Your task to perform on an android device: turn on bluetooth scan Image 0: 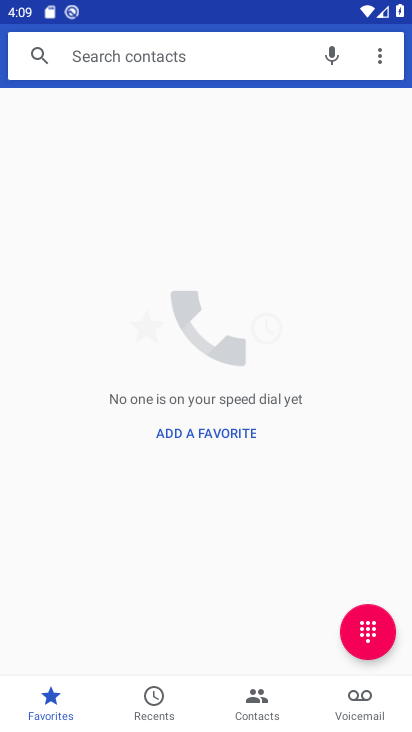
Step 0: press home button
Your task to perform on an android device: turn on bluetooth scan Image 1: 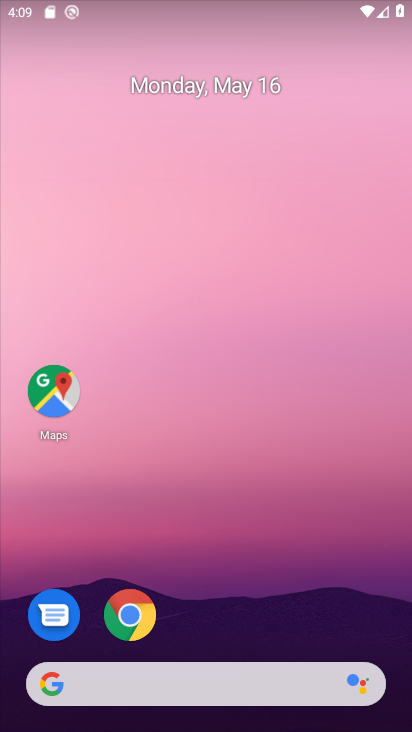
Step 1: drag from (202, 616) to (275, 5)
Your task to perform on an android device: turn on bluetooth scan Image 2: 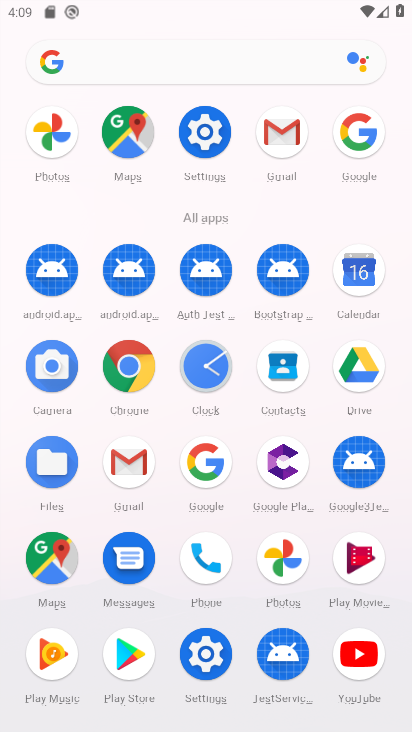
Step 2: click (203, 145)
Your task to perform on an android device: turn on bluetooth scan Image 3: 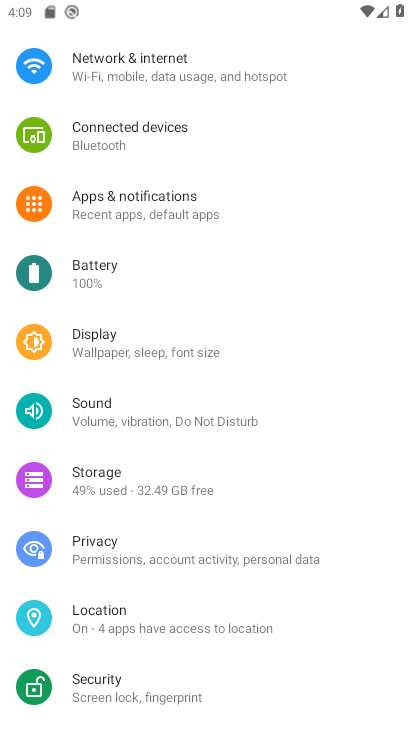
Step 3: drag from (177, 398) to (214, 116)
Your task to perform on an android device: turn on bluetooth scan Image 4: 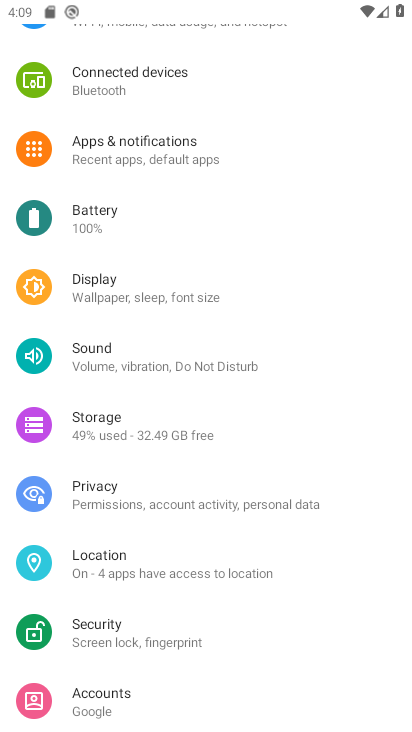
Step 4: drag from (188, 626) to (292, 108)
Your task to perform on an android device: turn on bluetooth scan Image 5: 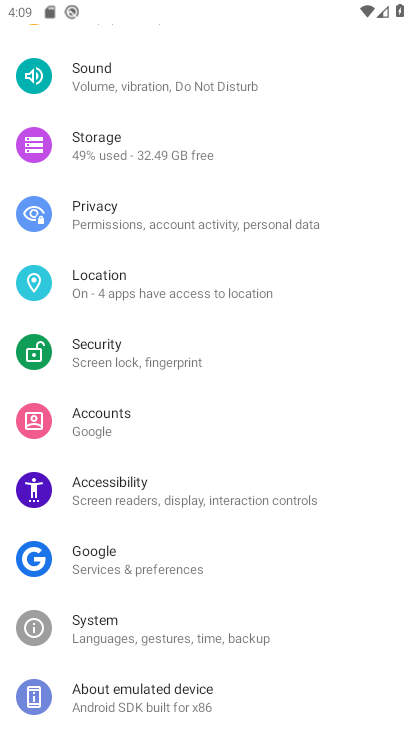
Step 5: drag from (124, 401) to (124, 550)
Your task to perform on an android device: turn on bluetooth scan Image 6: 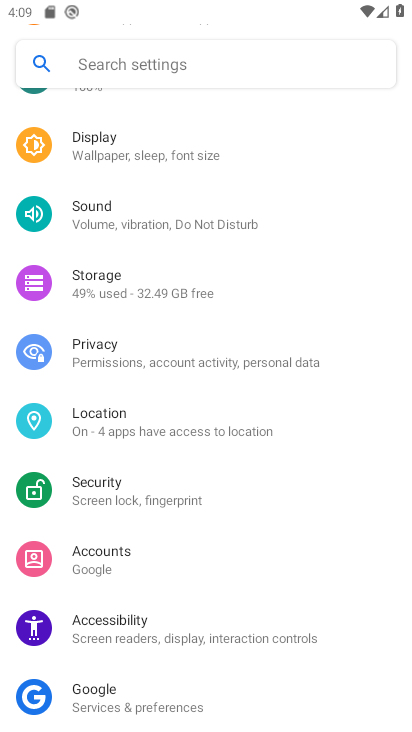
Step 6: drag from (150, 600) to (200, 279)
Your task to perform on an android device: turn on bluetooth scan Image 7: 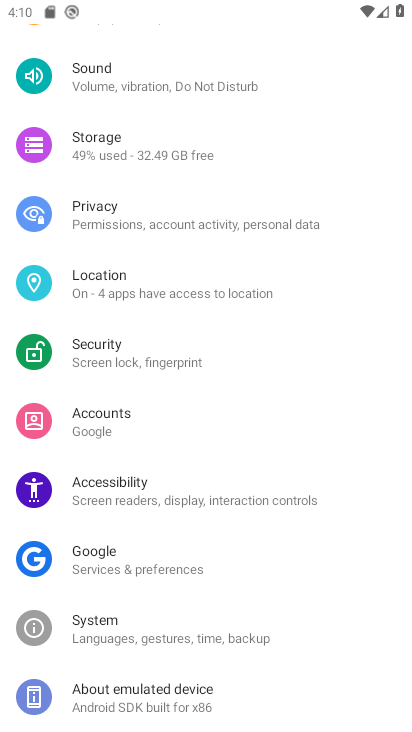
Step 7: click (111, 290)
Your task to perform on an android device: turn on bluetooth scan Image 8: 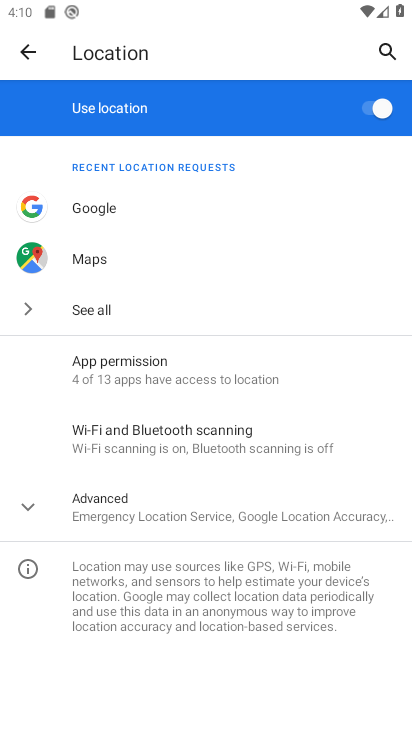
Step 8: click (127, 512)
Your task to perform on an android device: turn on bluetooth scan Image 9: 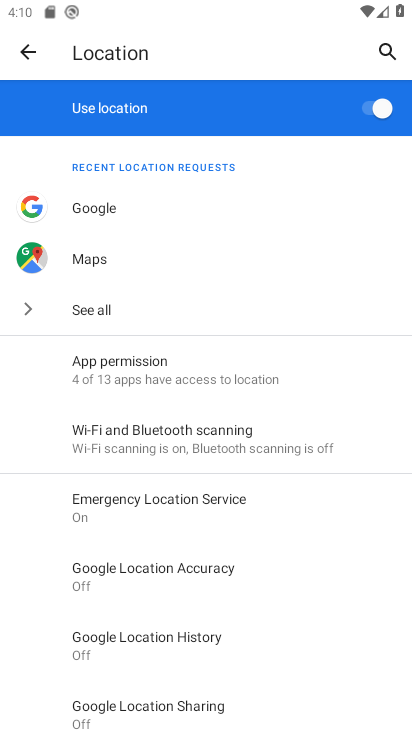
Step 9: click (184, 445)
Your task to perform on an android device: turn on bluetooth scan Image 10: 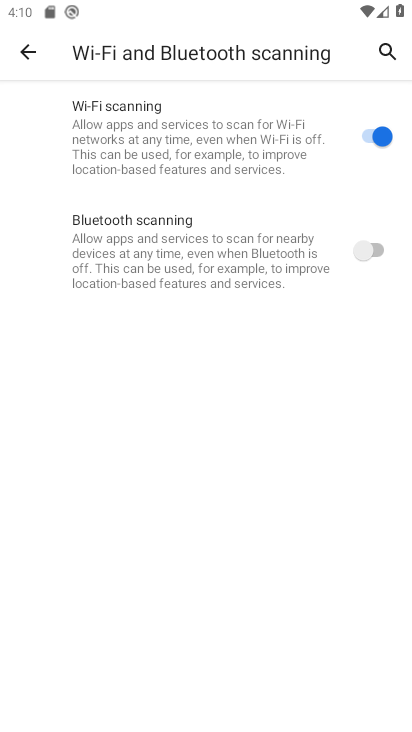
Step 10: click (381, 249)
Your task to perform on an android device: turn on bluetooth scan Image 11: 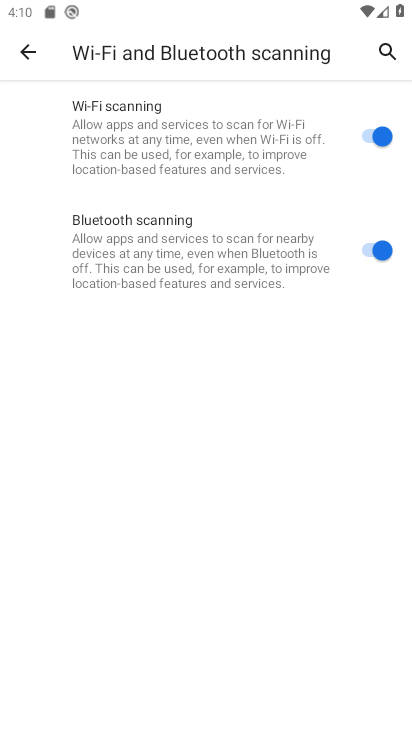
Step 11: task complete